Your task to perform on an android device: Do I have any events this weekend? Image 0: 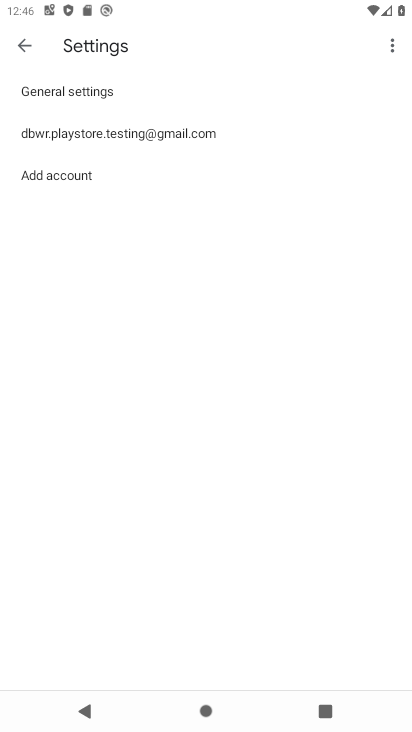
Step 0: press home button
Your task to perform on an android device: Do I have any events this weekend? Image 1: 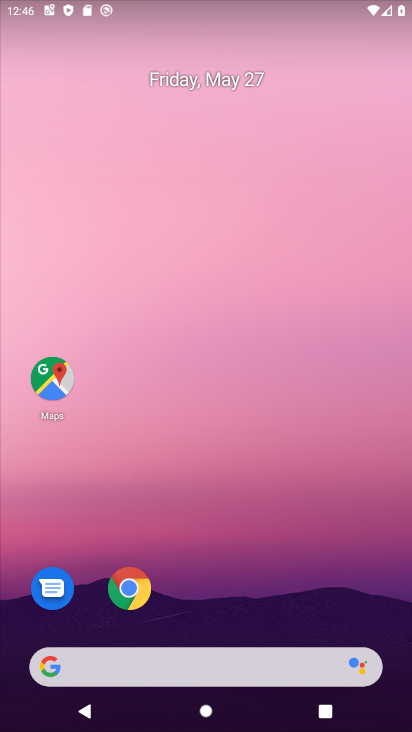
Step 1: drag from (183, 627) to (140, 67)
Your task to perform on an android device: Do I have any events this weekend? Image 2: 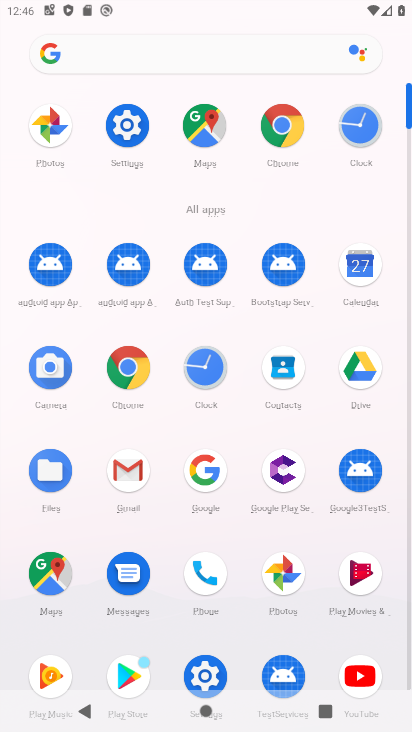
Step 2: click (354, 275)
Your task to perform on an android device: Do I have any events this weekend? Image 3: 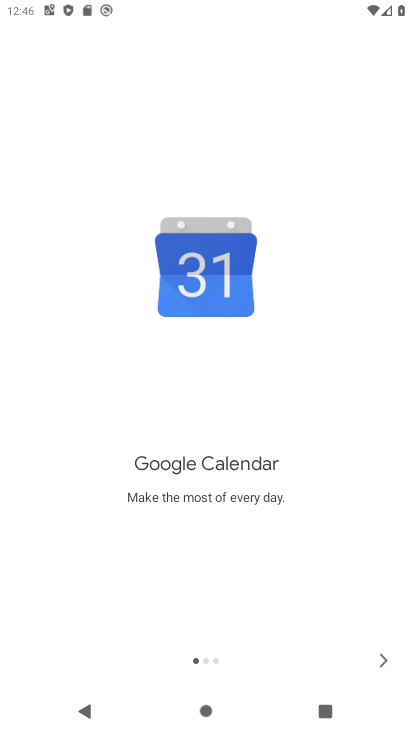
Step 3: click (384, 662)
Your task to perform on an android device: Do I have any events this weekend? Image 4: 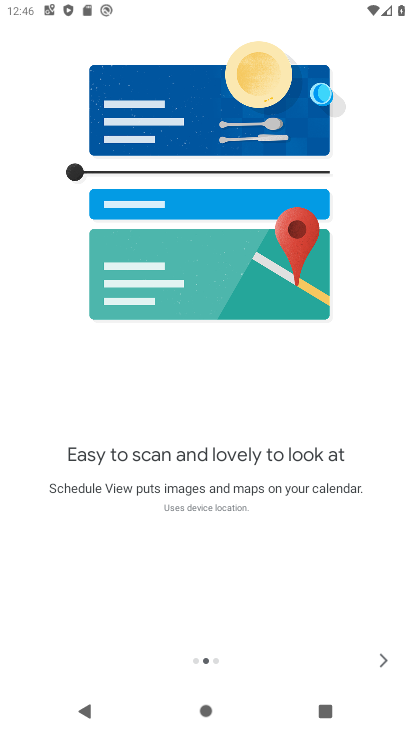
Step 4: click (384, 662)
Your task to perform on an android device: Do I have any events this weekend? Image 5: 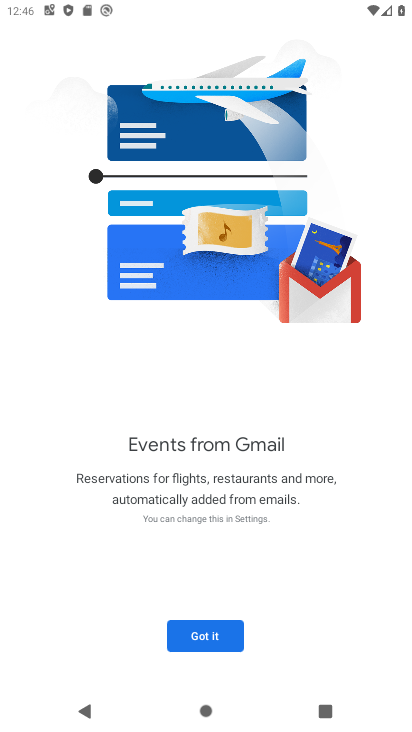
Step 5: click (211, 637)
Your task to perform on an android device: Do I have any events this weekend? Image 6: 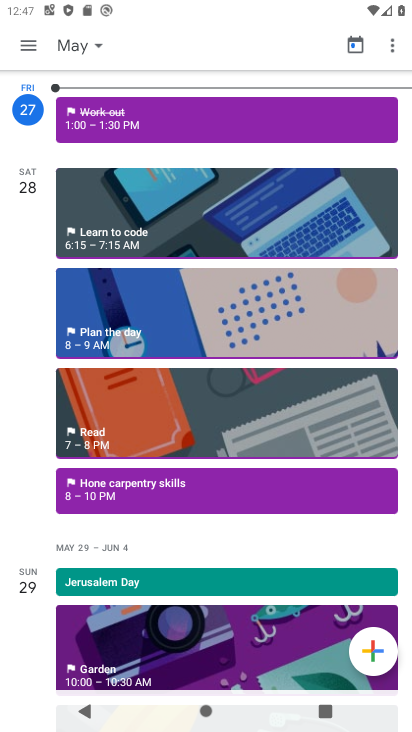
Step 6: click (29, 47)
Your task to perform on an android device: Do I have any events this weekend? Image 7: 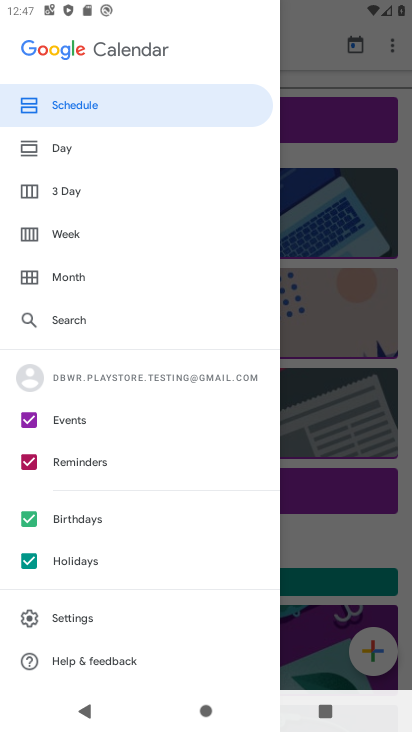
Step 7: click (59, 231)
Your task to perform on an android device: Do I have any events this weekend? Image 8: 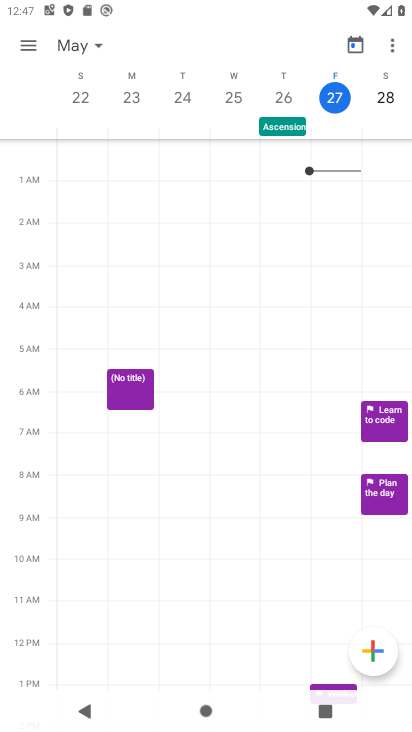
Step 8: task complete